Your task to perform on an android device: turn on translation in the chrome app Image 0: 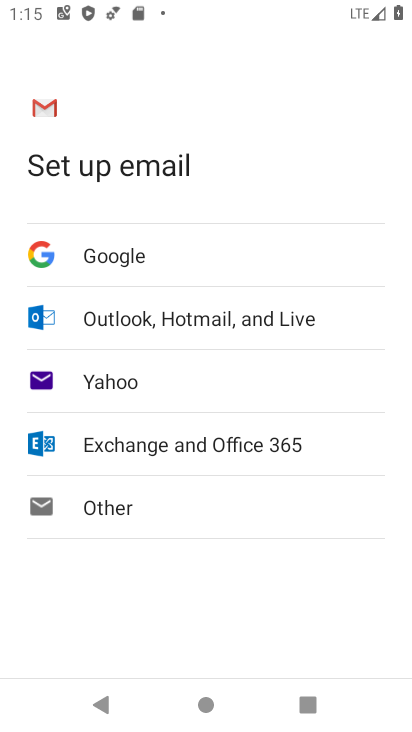
Step 0: press home button
Your task to perform on an android device: turn on translation in the chrome app Image 1: 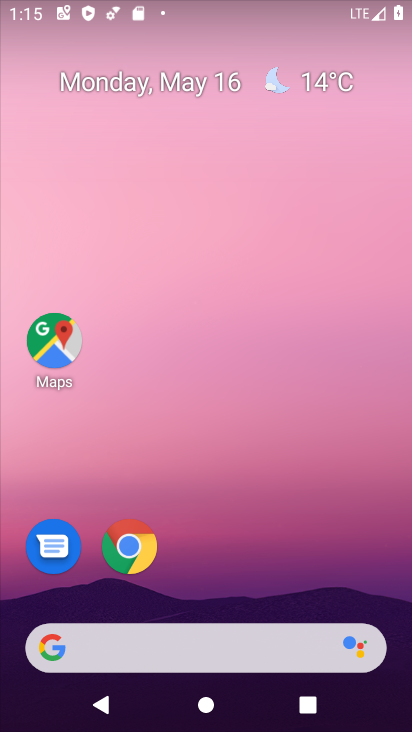
Step 1: drag from (156, 670) to (374, 69)
Your task to perform on an android device: turn on translation in the chrome app Image 2: 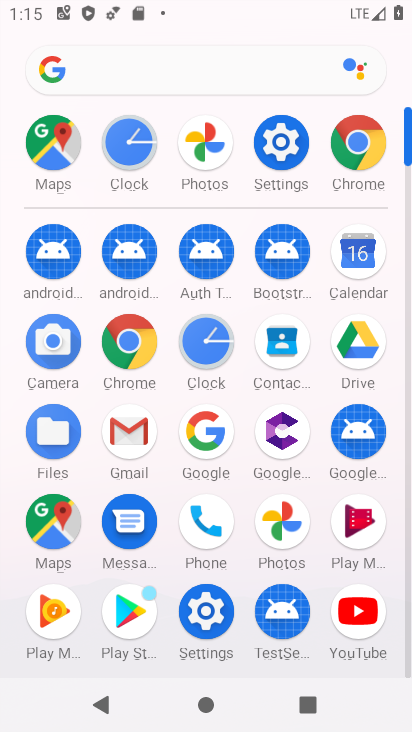
Step 2: click (346, 146)
Your task to perform on an android device: turn on translation in the chrome app Image 3: 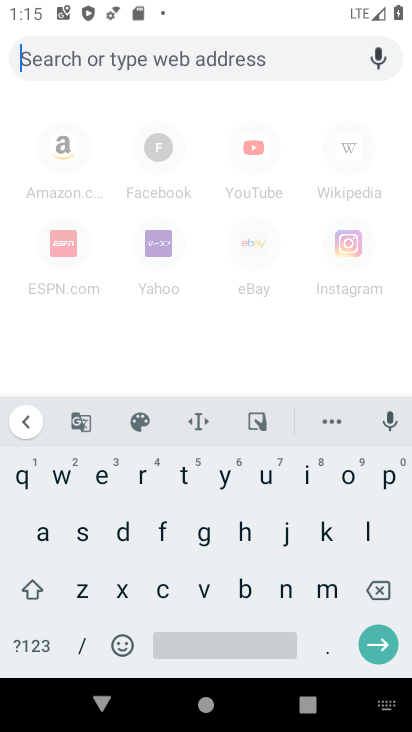
Step 3: press back button
Your task to perform on an android device: turn on translation in the chrome app Image 4: 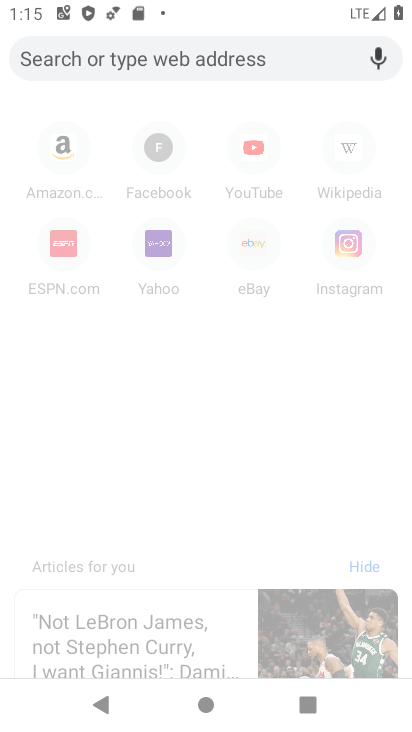
Step 4: press back button
Your task to perform on an android device: turn on translation in the chrome app Image 5: 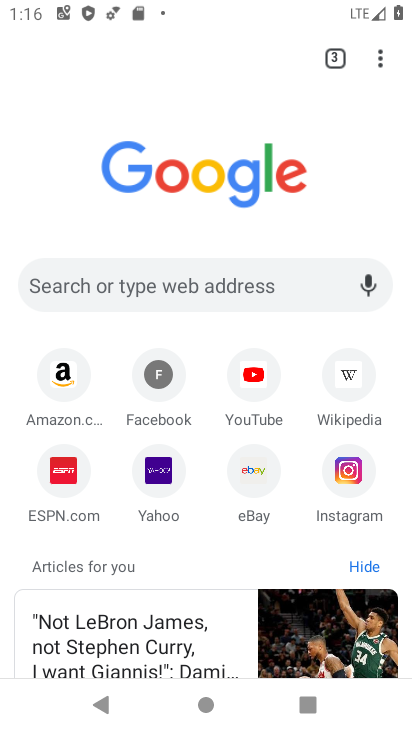
Step 5: click (379, 65)
Your task to perform on an android device: turn on translation in the chrome app Image 6: 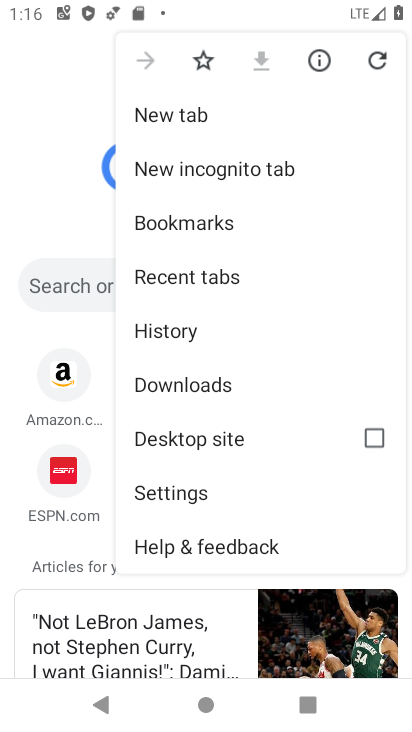
Step 6: click (189, 488)
Your task to perform on an android device: turn on translation in the chrome app Image 7: 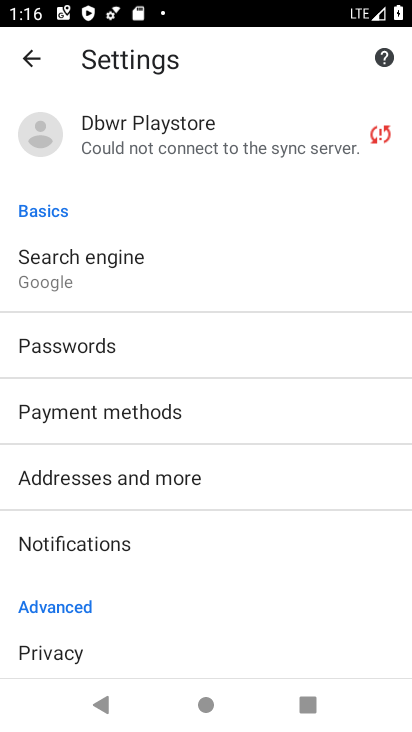
Step 7: drag from (84, 576) to (133, 448)
Your task to perform on an android device: turn on translation in the chrome app Image 8: 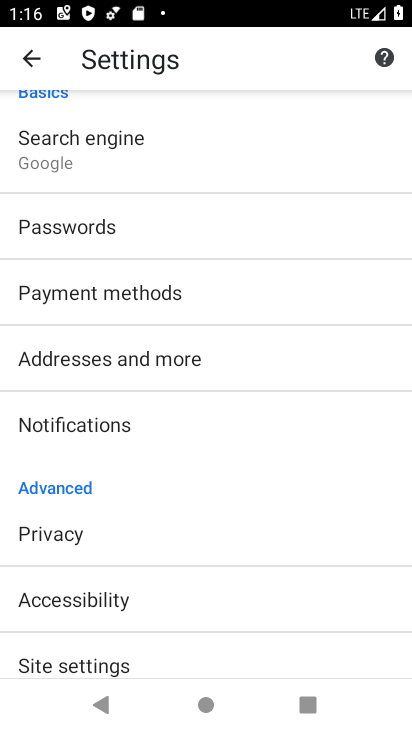
Step 8: drag from (119, 564) to (154, 437)
Your task to perform on an android device: turn on translation in the chrome app Image 9: 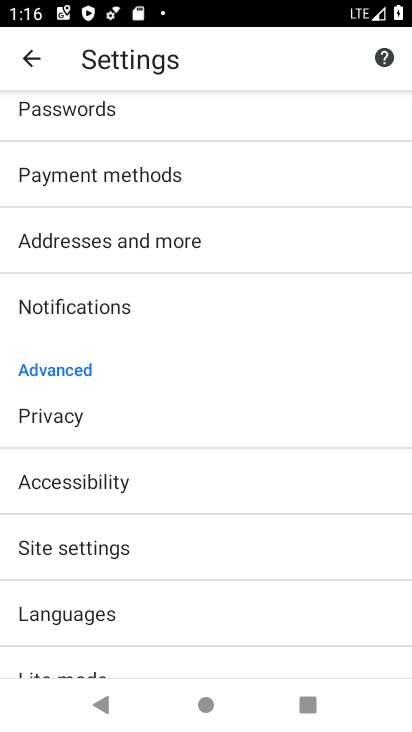
Step 9: click (77, 601)
Your task to perform on an android device: turn on translation in the chrome app Image 10: 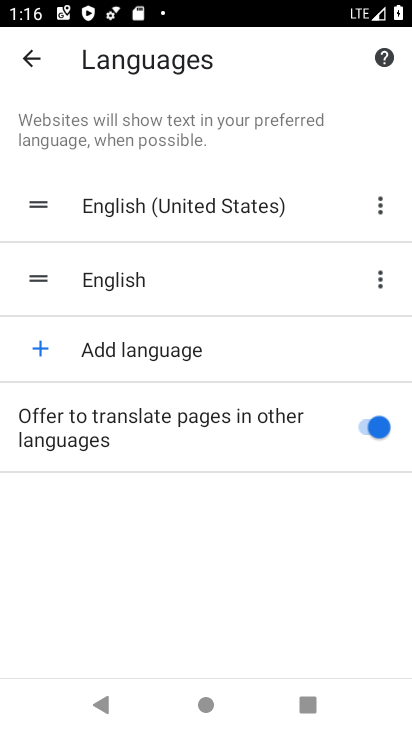
Step 10: click (321, 432)
Your task to perform on an android device: turn on translation in the chrome app Image 11: 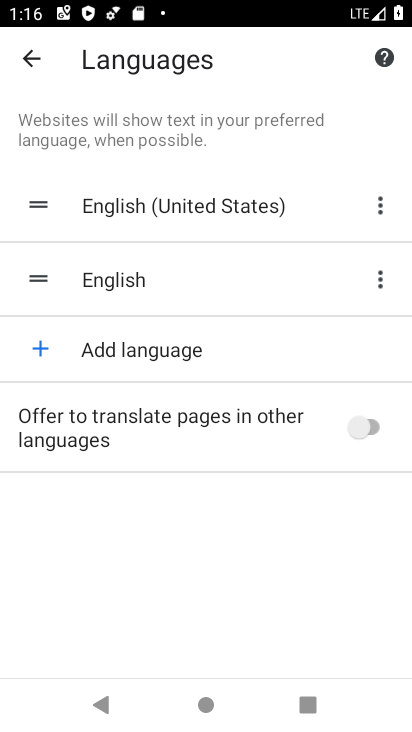
Step 11: click (321, 432)
Your task to perform on an android device: turn on translation in the chrome app Image 12: 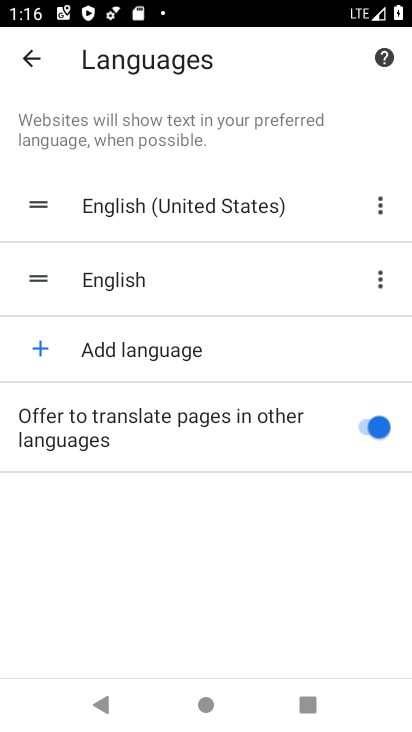
Step 12: task complete